Your task to perform on an android device: What's on my calendar tomorrow? Image 0: 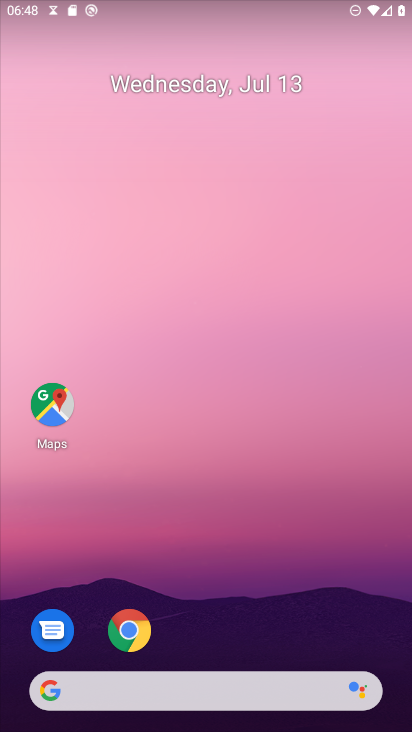
Step 0: drag from (259, 689) to (302, 65)
Your task to perform on an android device: What's on my calendar tomorrow? Image 1: 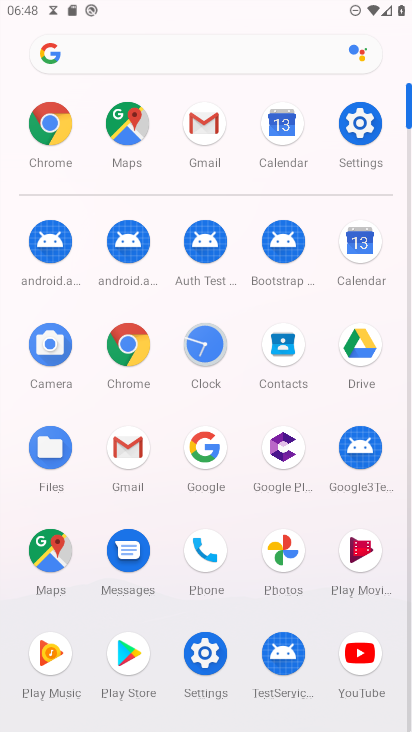
Step 1: click (369, 245)
Your task to perform on an android device: What's on my calendar tomorrow? Image 2: 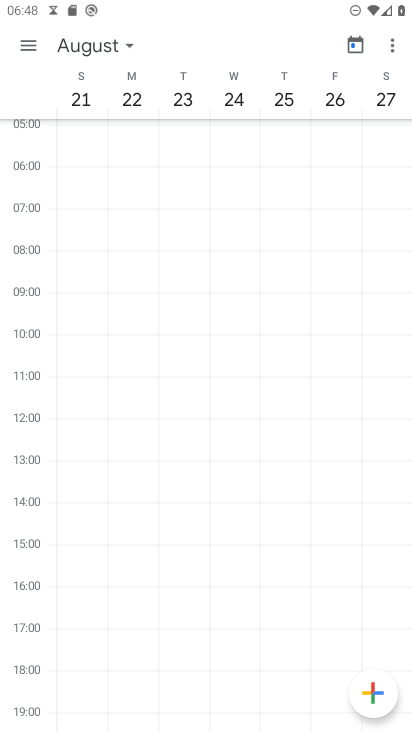
Step 2: click (133, 43)
Your task to perform on an android device: What's on my calendar tomorrow? Image 3: 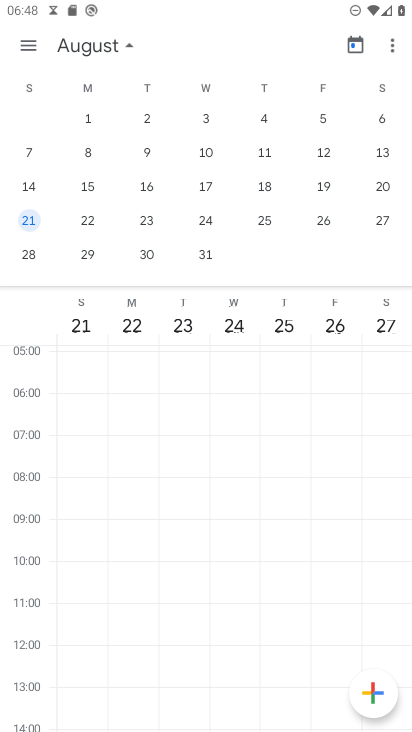
Step 3: click (92, 210)
Your task to perform on an android device: What's on my calendar tomorrow? Image 4: 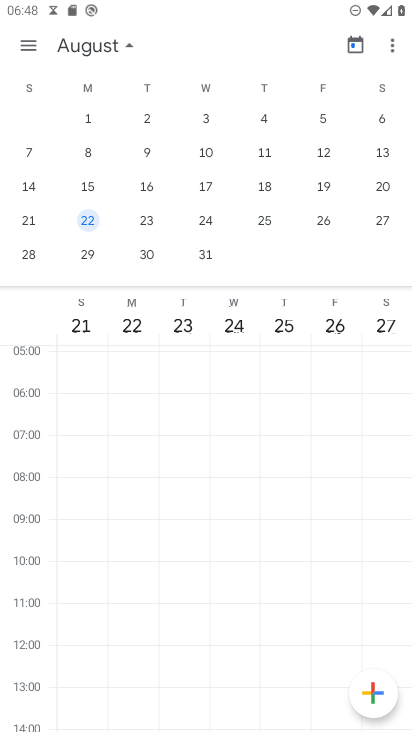
Step 4: task complete